Your task to perform on an android device: add a contact Image 0: 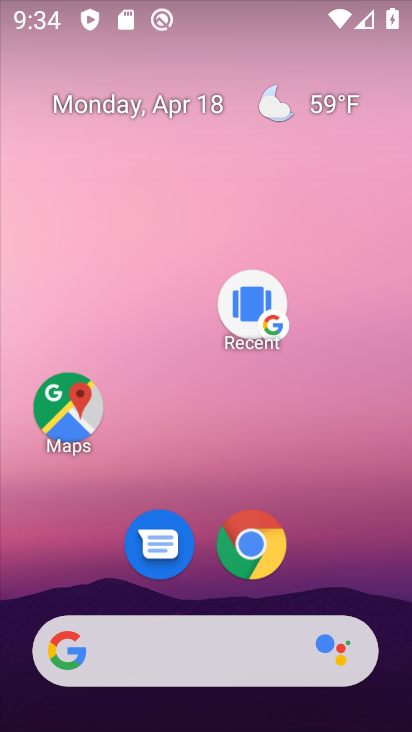
Step 0: drag from (350, 590) to (298, 5)
Your task to perform on an android device: add a contact Image 1: 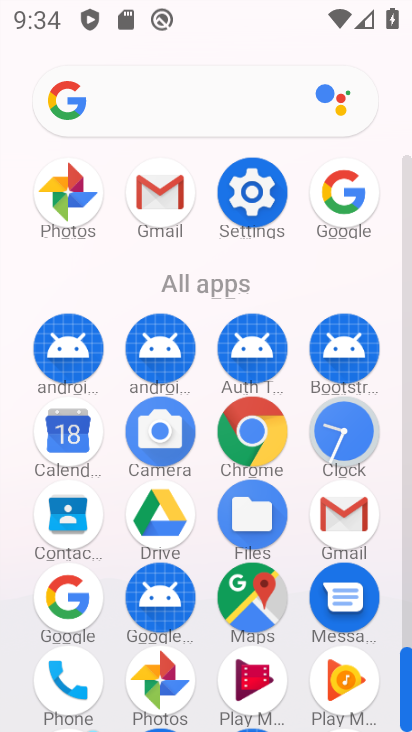
Step 1: click (52, 517)
Your task to perform on an android device: add a contact Image 2: 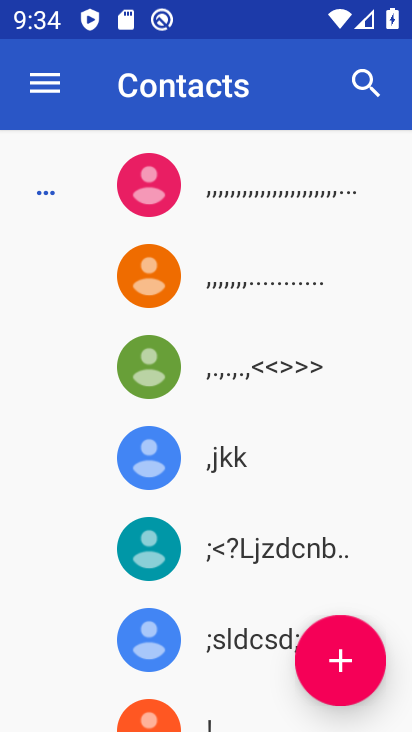
Step 2: click (368, 651)
Your task to perform on an android device: add a contact Image 3: 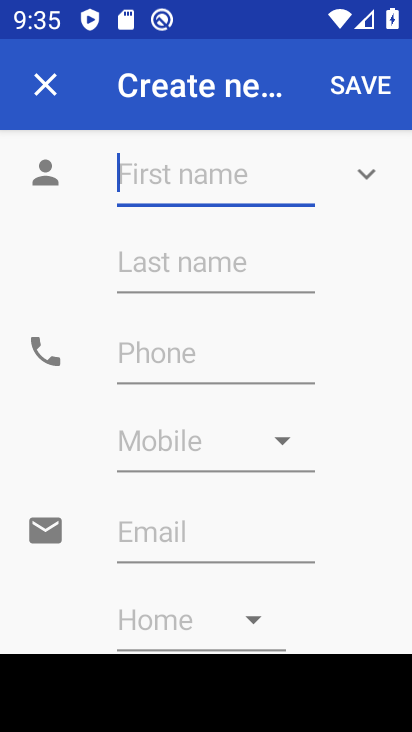
Step 3: type "vjhjhjh"
Your task to perform on an android device: add a contact Image 4: 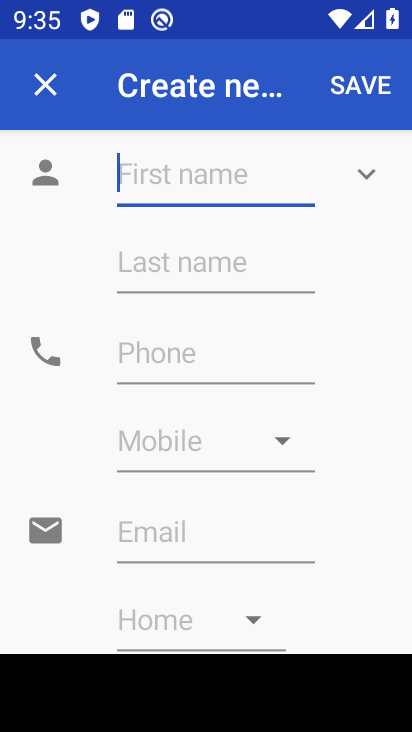
Step 4: click (285, 376)
Your task to perform on an android device: add a contact Image 5: 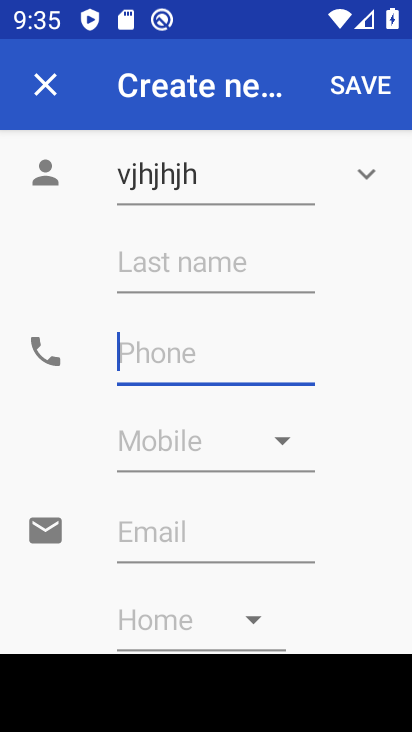
Step 5: type "876876"
Your task to perform on an android device: add a contact Image 6: 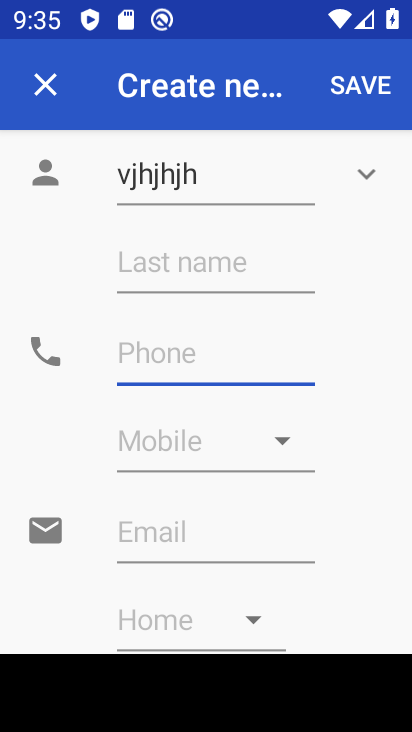
Step 6: click (399, 479)
Your task to perform on an android device: add a contact Image 7: 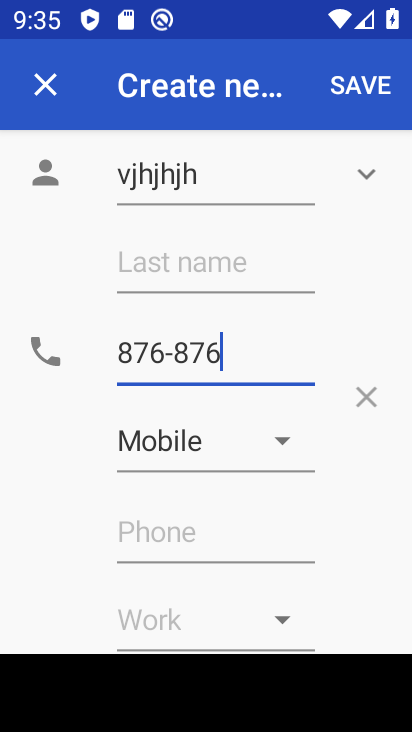
Step 7: click (359, 95)
Your task to perform on an android device: add a contact Image 8: 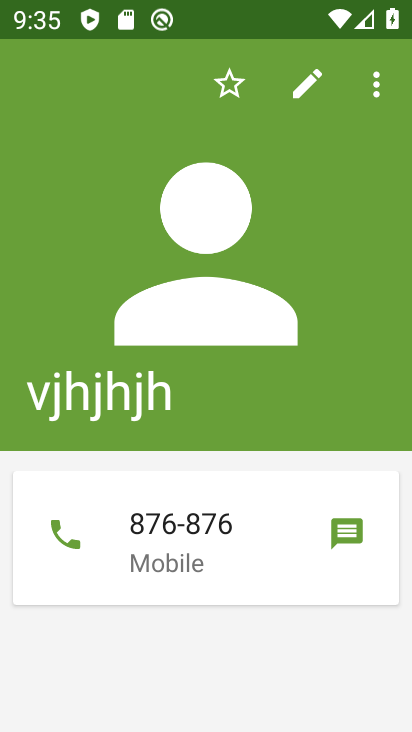
Step 8: task complete